Your task to perform on an android device: Open settings Image 0: 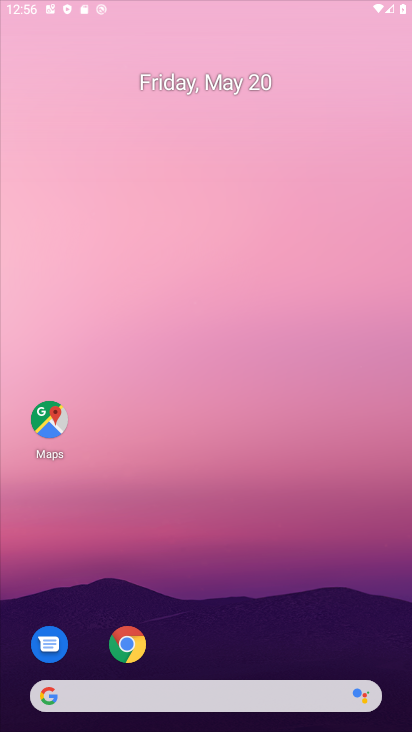
Step 0: drag from (322, 521) to (326, 4)
Your task to perform on an android device: Open settings Image 1: 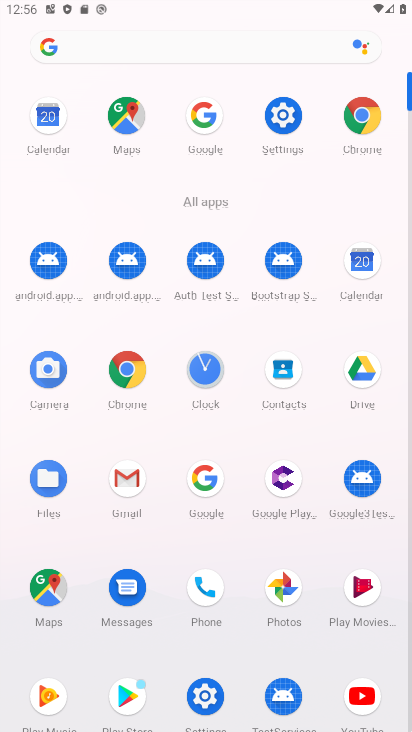
Step 1: click (279, 121)
Your task to perform on an android device: Open settings Image 2: 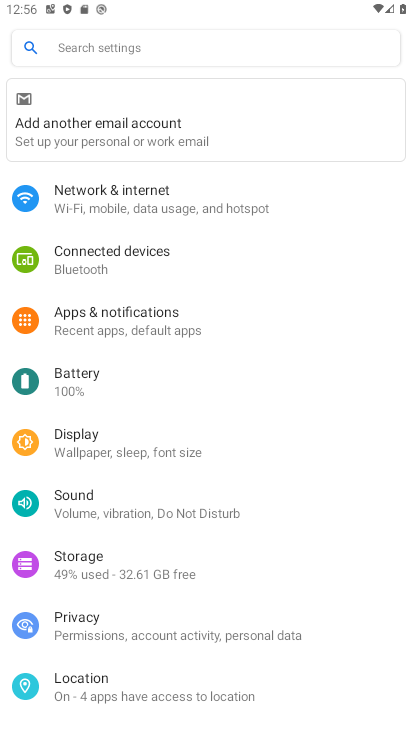
Step 2: task complete